Your task to perform on an android device: Open Reddit.com Image 0: 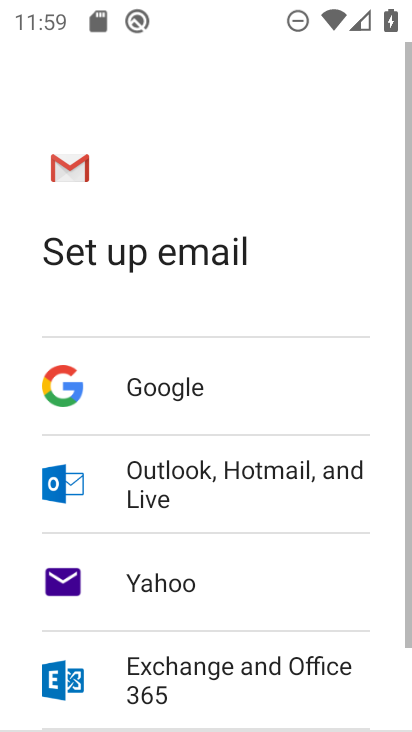
Step 0: press home button
Your task to perform on an android device: Open Reddit.com Image 1: 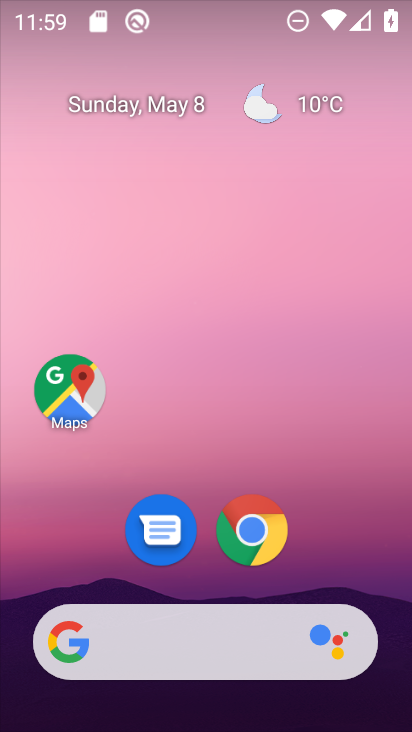
Step 1: click (253, 521)
Your task to perform on an android device: Open Reddit.com Image 2: 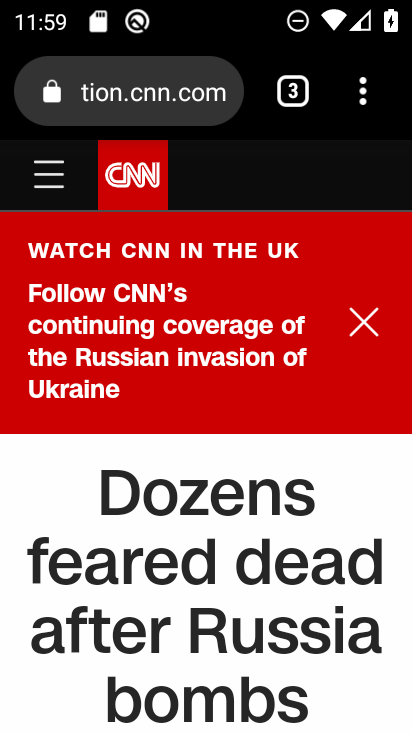
Step 2: click (304, 90)
Your task to perform on an android device: Open Reddit.com Image 3: 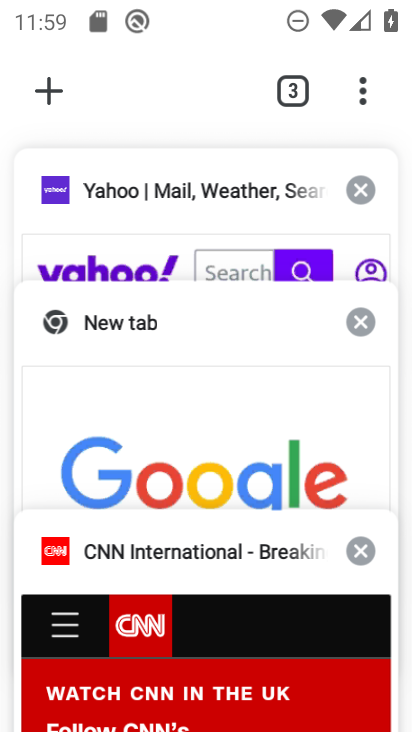
Step 3: click (52, 89)
Your task to perform on an android device: Open Reddit.com Image 4: 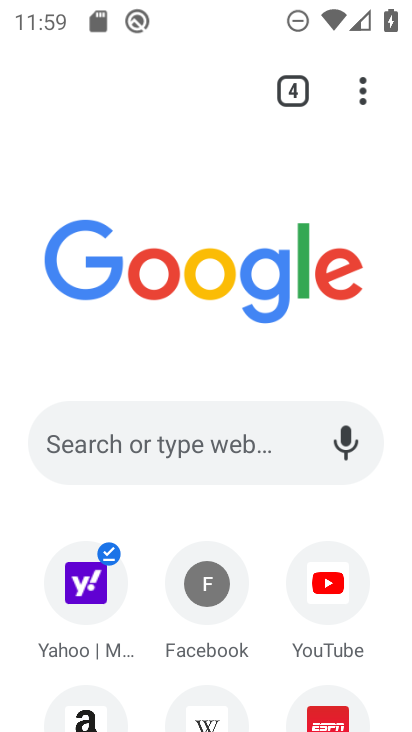
Step 4: drag from (255, 665) to (306, 77)
Your task to perform on an android device: Open Reddit.com Image 5: 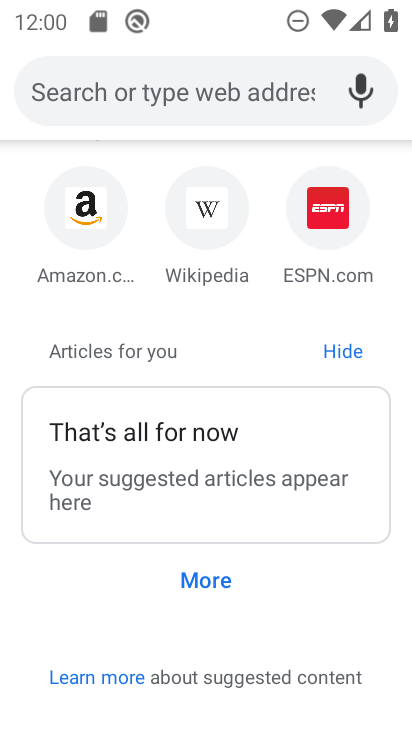
Step 5: click (142, 99)
Your task to perform on an android device: Open Reddit.com Image 6: 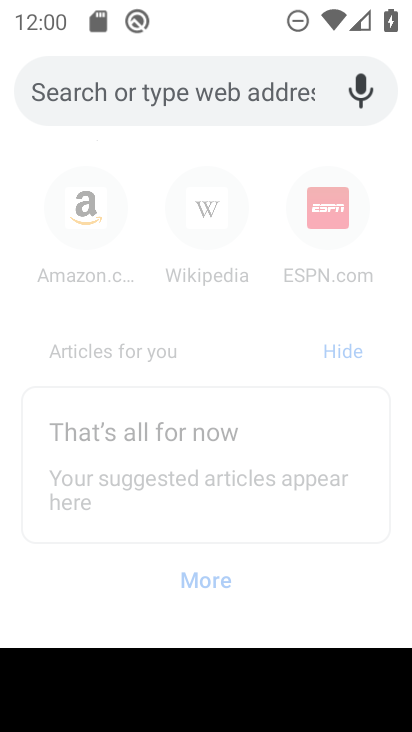
Step 6: type "reddit"
Your task to perform on an android device: Open Reddit.com Image 7: 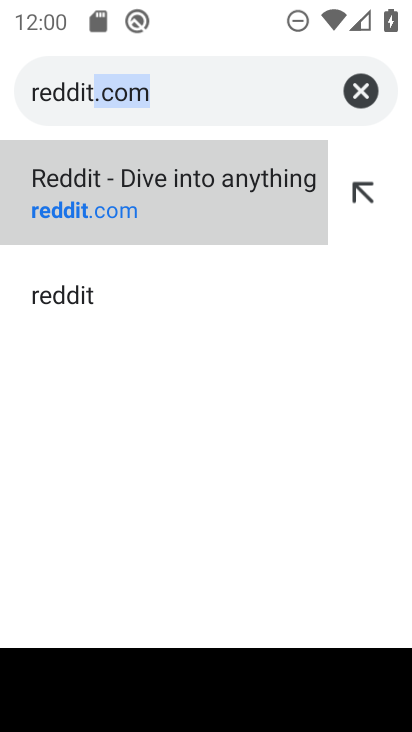
Step 7: click (99, 281)
Your task to perform on an android device: Open Reddit.com Image 8: 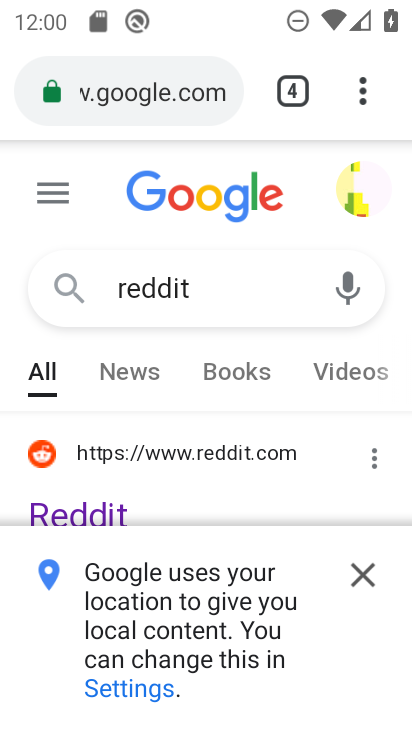
Step 8: task complete